Your task to perform on an android device: Open calendar and show me the first week of next month Image 0: 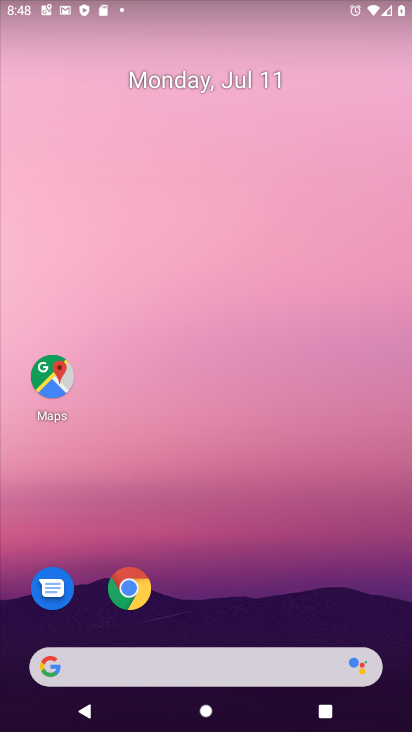
Step 0: drag from (141, 657) to (268, 159)
Your task to perform on an android device: Open calendar and show me the first week of next month Image 1: 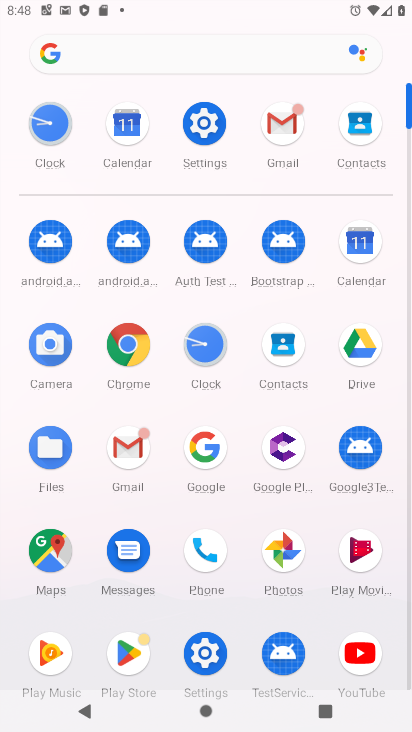
Step 1: click (354, 242)
Your task to perform on an android device: Open calendar and show me the first week of next month Image 2: 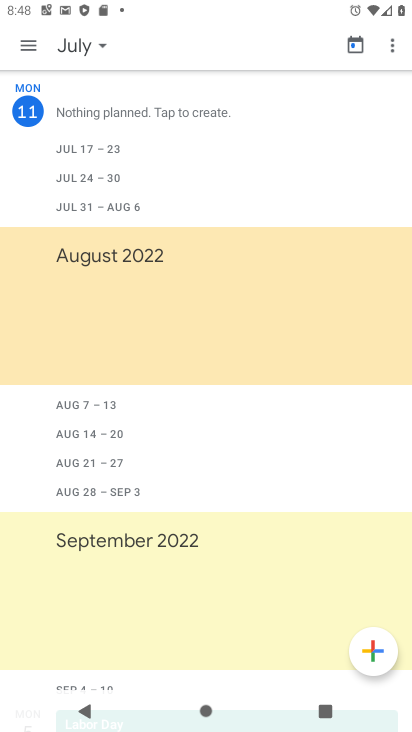
Step 2: click (77, 39)
Your task to perform on an android device: Open calendar and show me the first week of next month Image 3: 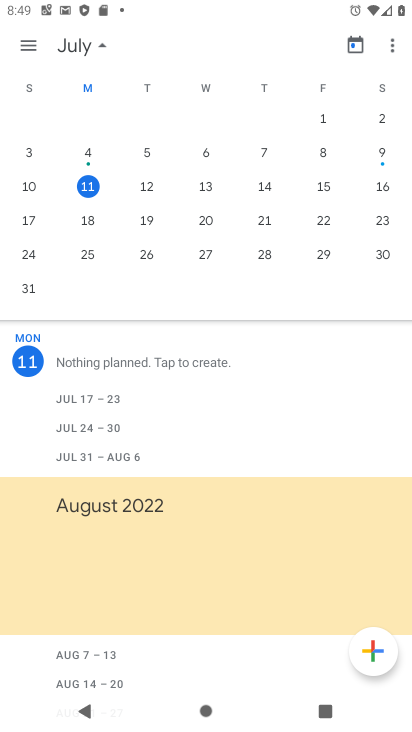
Step 3: drag from (367, 203) to (0, 166)
Your task to perform on an android device: Open calendar and show me the first week of next month Image 4: 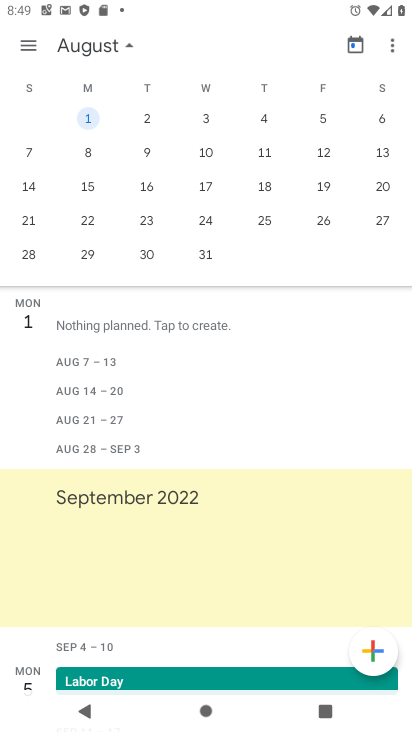
Step 4: click (88, 117)
Your task to perform on an android device: Open calendar and show me the first week of next month Image 5: 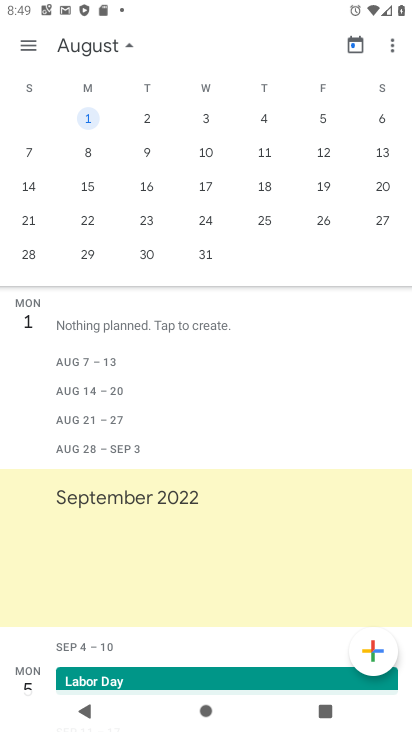
Step 5: click (32, 48)
Your task to perform on an android device: Open calendar and show me the first week of next month Image 6: 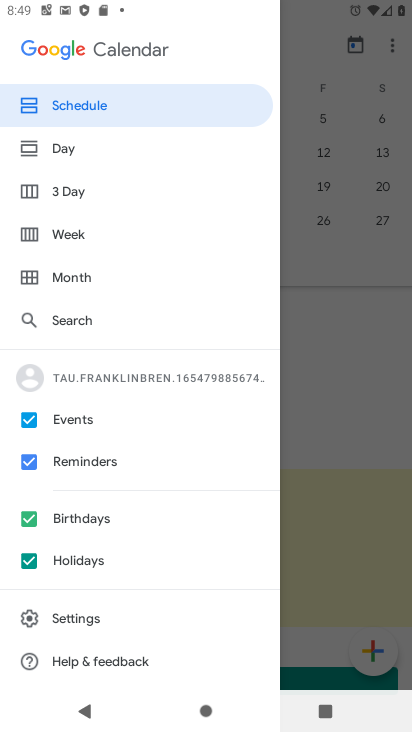
Step 6: click (74, 234)
Your task to perform on an android device: Open calendar and show me the first week of next month Image 7: 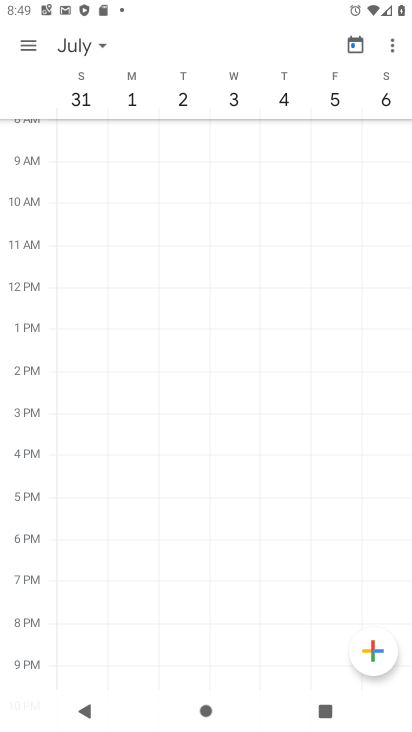
Step 7: task complete